Your task to perform on an android device: Open privacy settings Image 0: 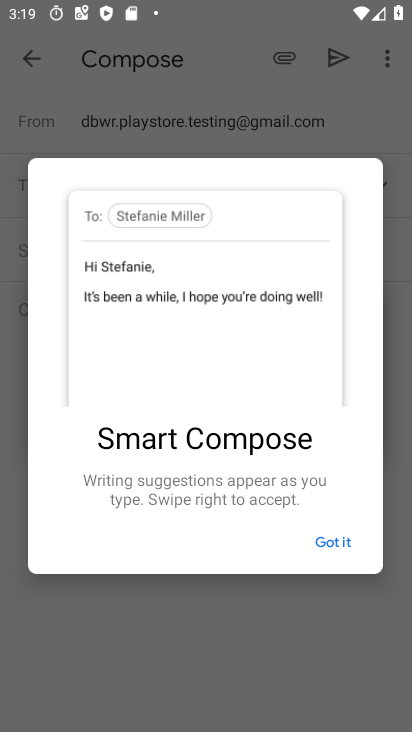
Step 0: press home button
Your task to perform on an android device: Open privacy settings Image 1: 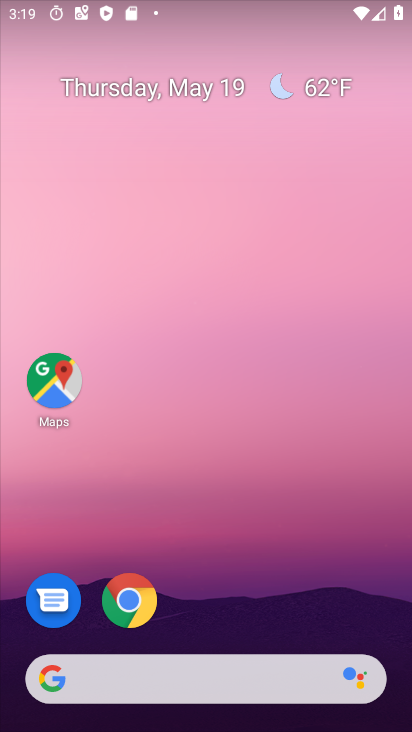
Step 1: drag from (44, 649) to (277, 134)
Your task to perform on an android device: Open privacy settings Image 2: 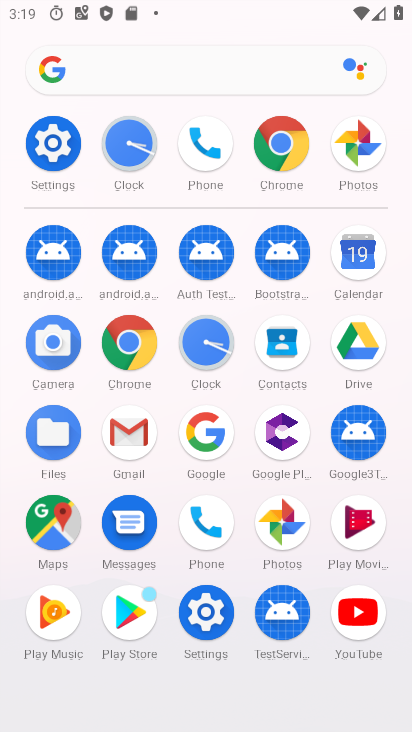
Step 2: click (45, 144)
Your task to perform on an android device: Open privacy settings Image 3: 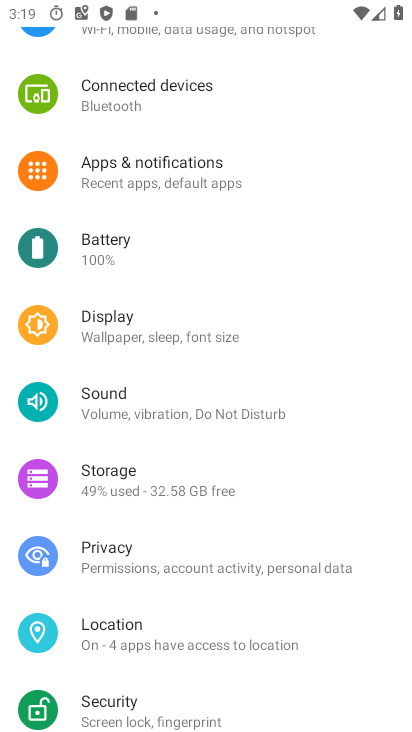
Step 3: click (106, 551)
Your task to perform on an android device: Open privacy settings Image 4: 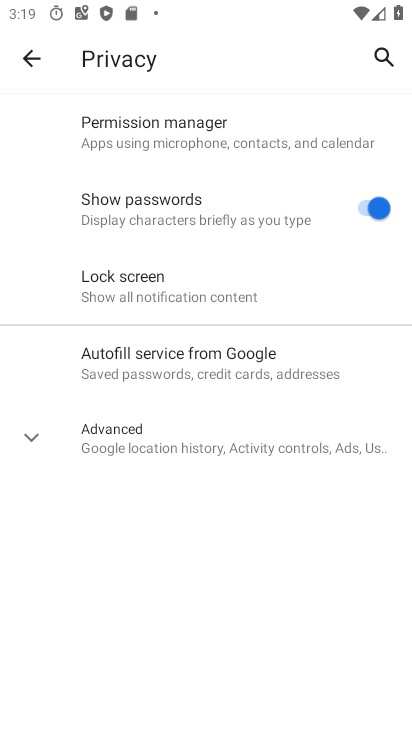
Step 4: task complete